Your task to perform on an android device: Search for Mexican restaurants on Maps Image 0: 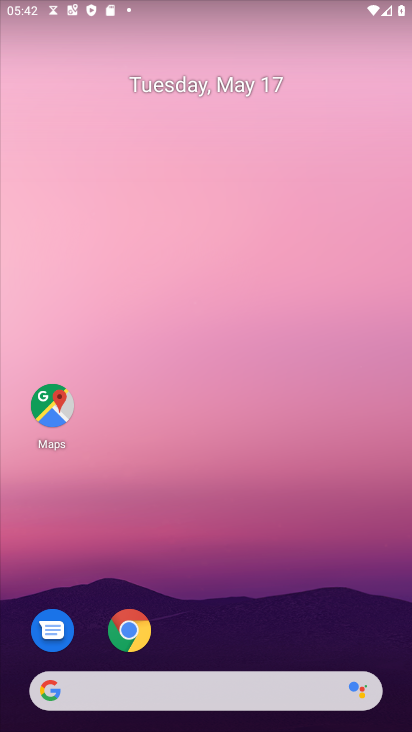
Step 0: click (54, 394)
Your task to perform on an android device: Search for Mexican restaurants on Maps Image 1: 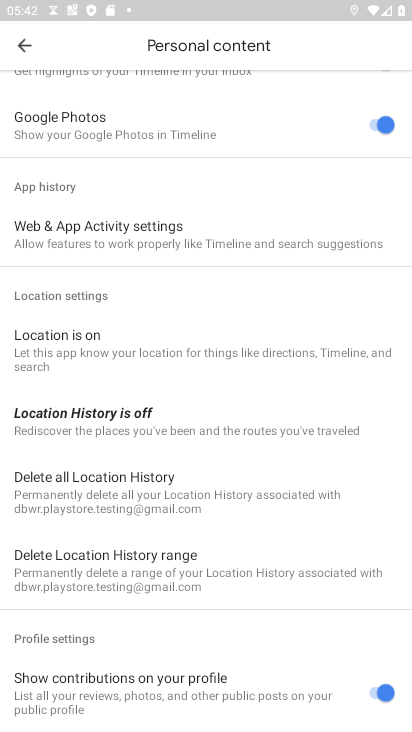
Step 1: click (21, 50)
Your task to perform on an android device: Search for Mexican restaurants on Maps Image 2: 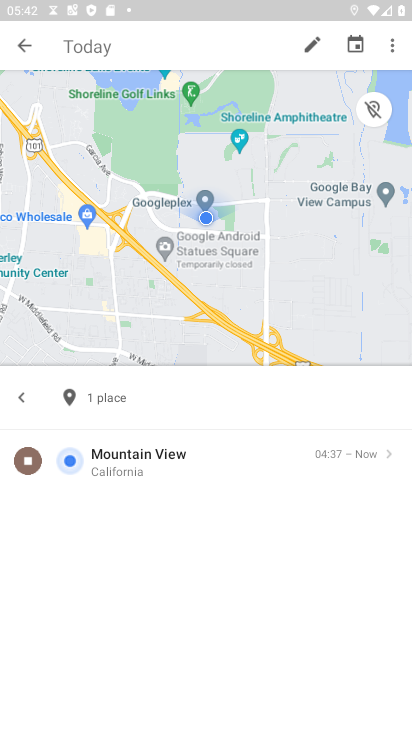
Step 2: click (24, 50)
Your task to perform on an android device: Search for Mexican restaurants on Maps Image 3: 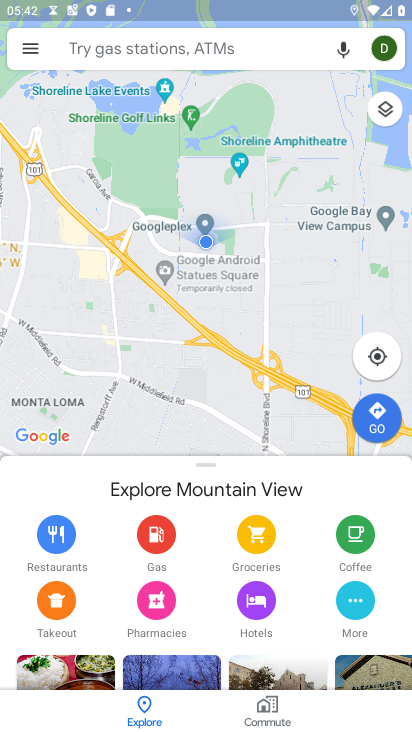
Step 3: click (127, 43)
Your task to perform on an android device: Search for Mexican restaurants on Maps Image 4: 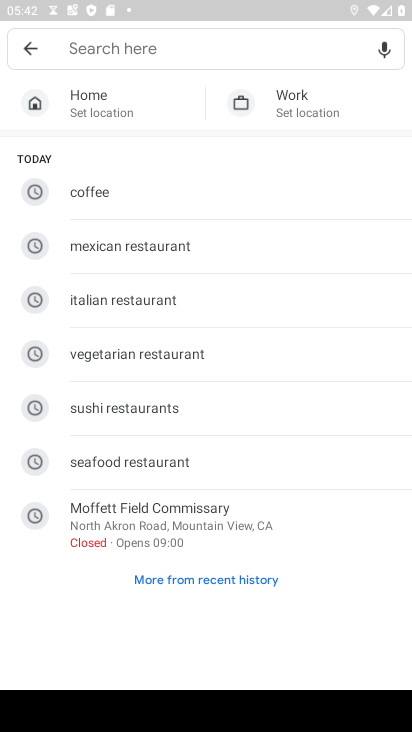
Step 4: type " Mexican restaurants"
Your task to perform on an android device: Search for Mexican restaurants on Maps Image 5: 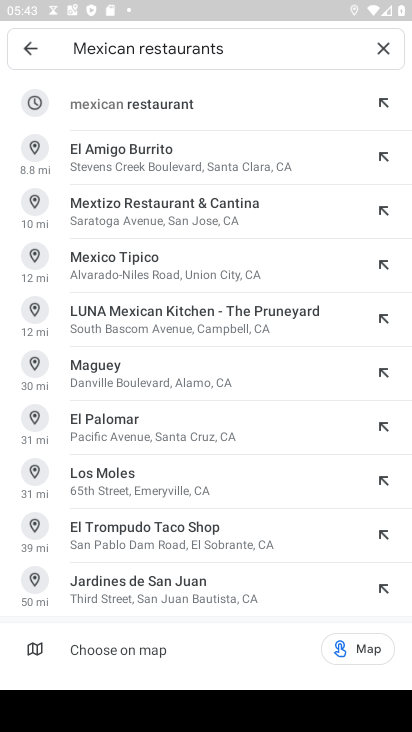
Step 5: click (146, 98)
Your task to perform on an android device: Search for Mexican restaurants on Maps Image 6: 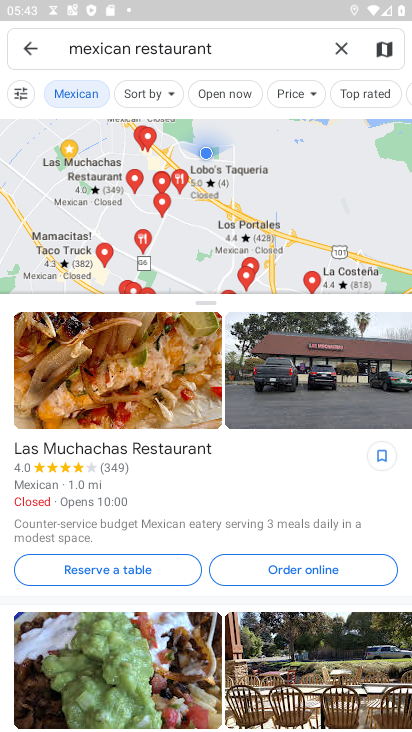
Step 6: task complete